Your task to perform on an android device: remove spam from my inbox in the gmail app Image 0: 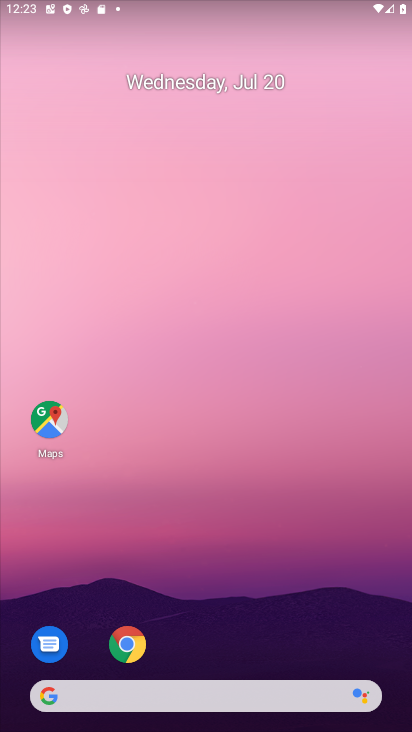
Step 0: press home button
Your task to perform on an android device: remove spam from my inbox in the gmail app Image 1: 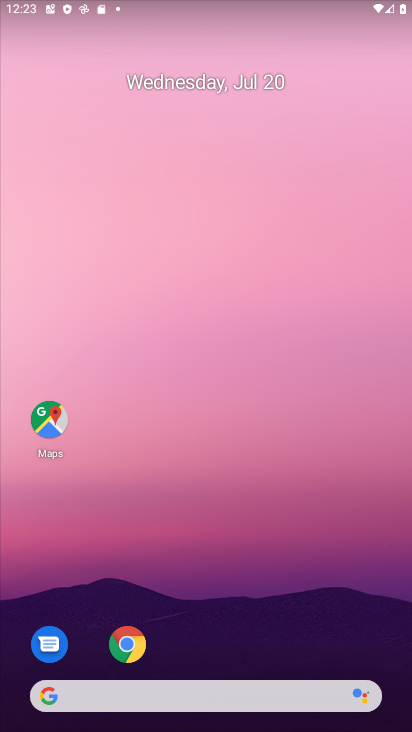
Step 1: drag from (290, 558) to (277, 6)
Your task to perform on an android device: remove spam from my inbox in the gmail app Image 2: 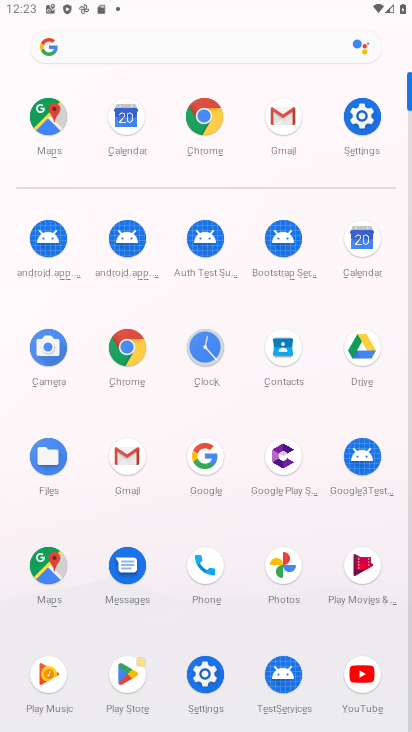
Step 2: click (139, 436)
Your task to perform on an android device: remove spam from my inbox in the gmail app Image 3: 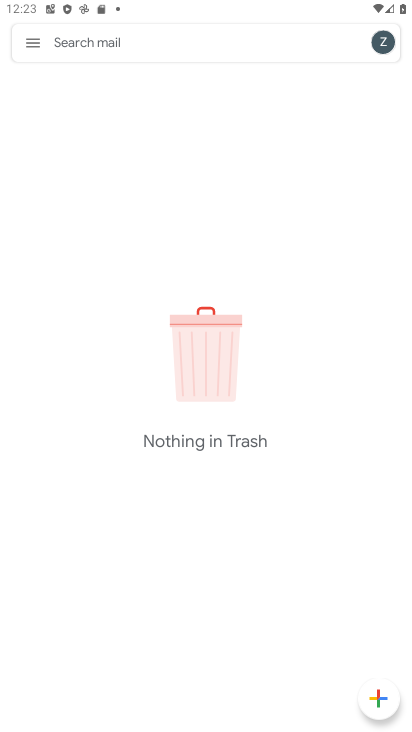
Step 3: task complete